Your task to perform on an android device: Add acer nitro to the cart on target.com, then select checkout. Image 0: 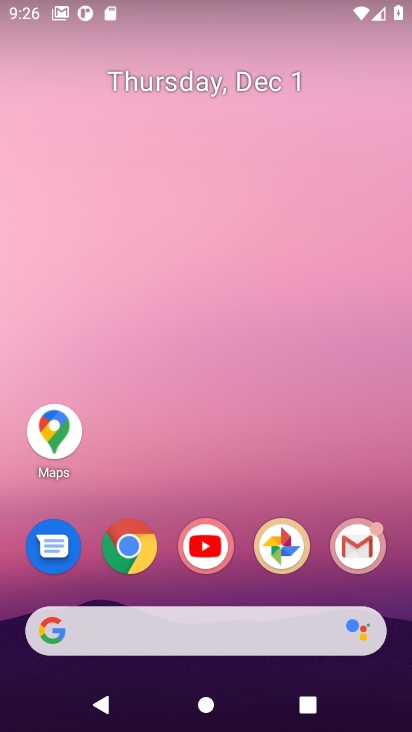
Step 0: click (127, 552)
Your task to perform on an android device: Add acer nitro to the cart on target.com, then select checkout. Image 1: 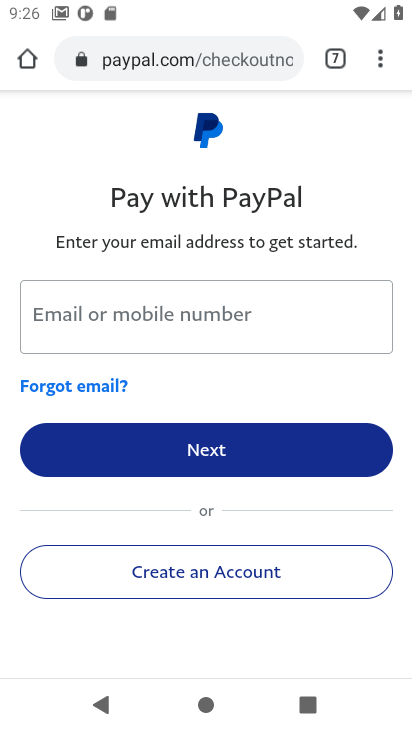
Step 1: click (162, 57)
Your task to perform on an android device: Add acer nitro to the cart on target.com, then select checkout. Image 2: 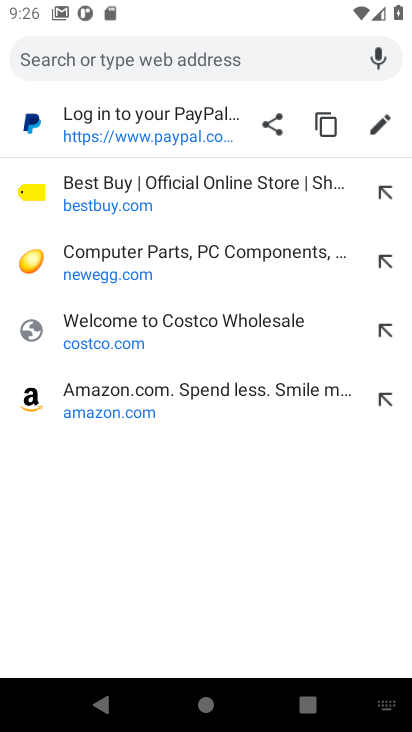
Step 2: type "target.com"
Your task to perform on an android device: Add acer nitro to the cart on target.com, then select checkout. Image 3: 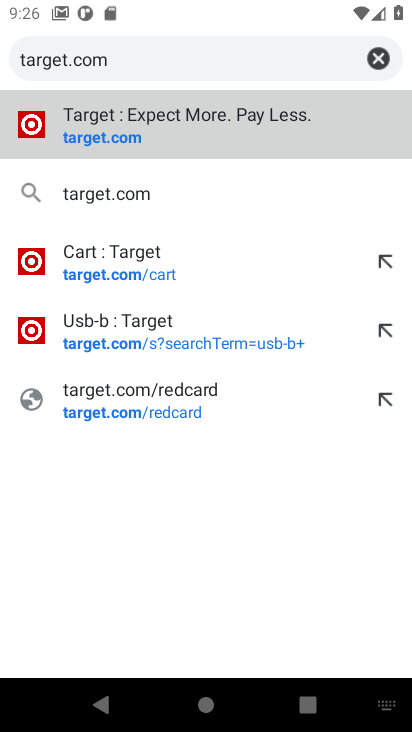
Step 3: click (96, 142)
Your task to perform on an android device: Add acer nitro to the cart on target.com, then select checkout. Image 4: 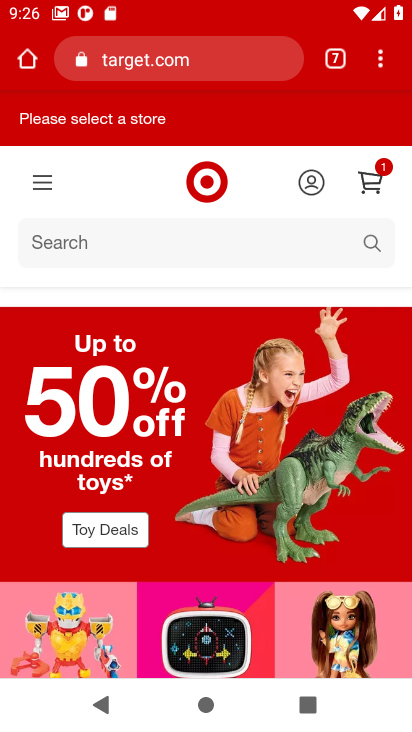
Step 4: click (50, 244)
Your task to perform on an android device: Add acer nitro to the cart on target.com, then select checkout. Image 5: 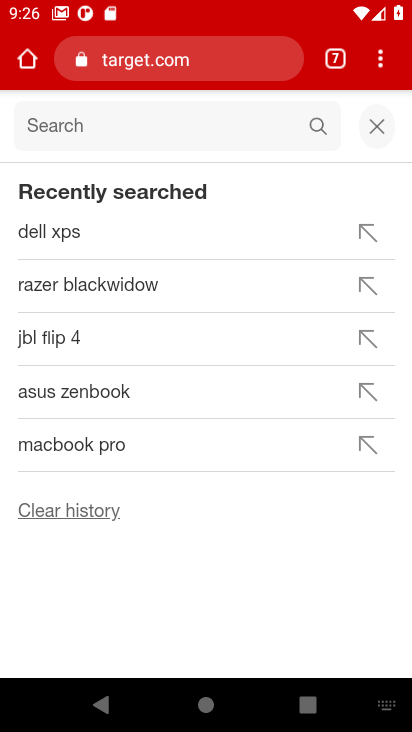
Step 5: type "acer nitro"
Your task to perform on an android device: Add acer nitro to the cart on target.com, then select checkout. Image 6: 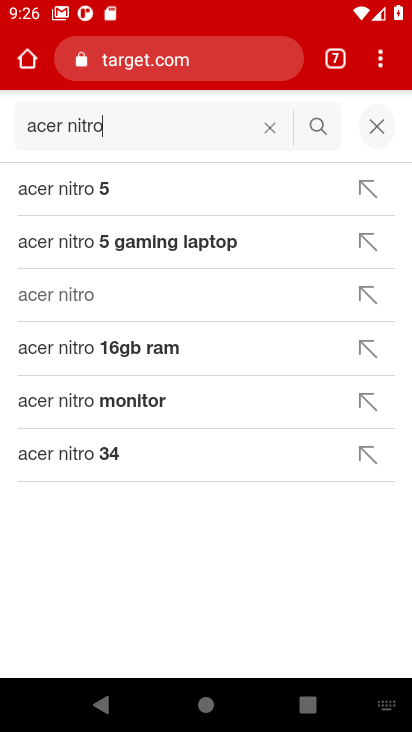
Step 6: click (48, 298)
Your task to perform on an android device: Add acer nitro to the cart on target.com, then select checkout. Image 7: 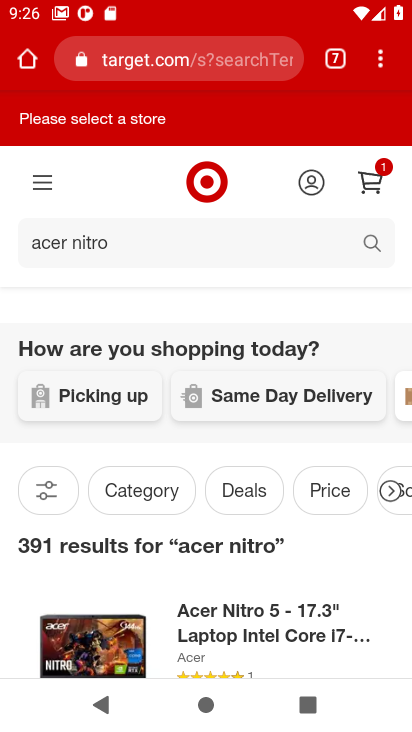
Step 7: drag from (174, 407) to (162, 244)
Your task to perform on an android device: Add acer nitro to the cart on target.com, then select checkout. Image 8: 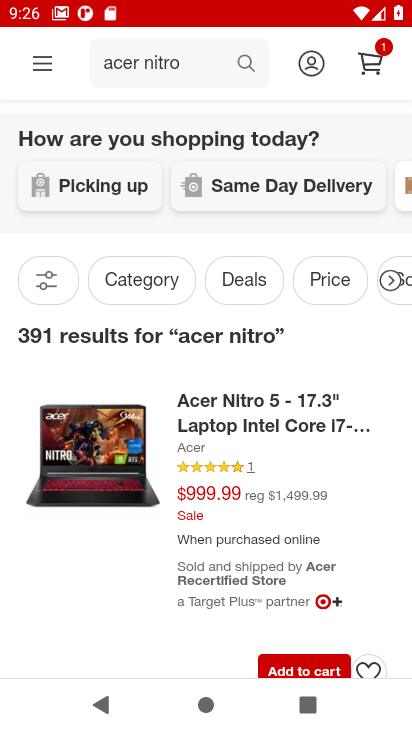
Step 8: click (292, 661)
Your task to perform on an android device: Add acer nitro to the cart on target.com, then select checkout. Image 9: 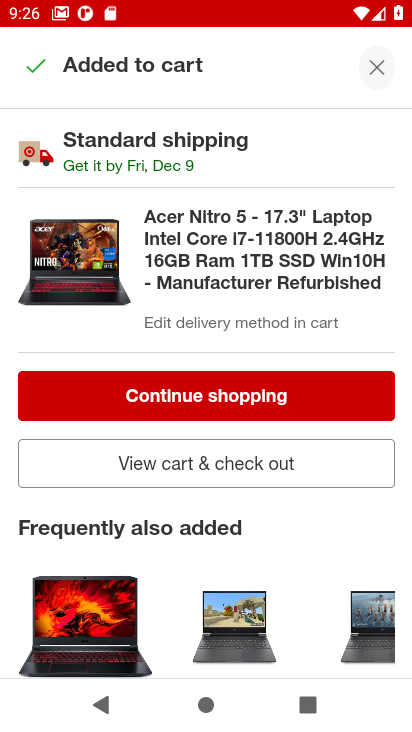
Step 9: click (188, 455)
Your task to perform on an android device: Add acer nitro to the cart on target.com, then select checkout. Image 10: 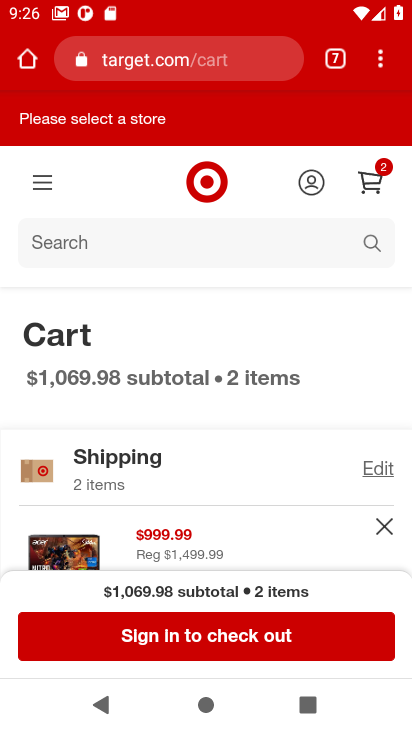
Step 10: click (171, 632)
Your task to perform on an android device: Add acer nitro to the cart on target.com, then select checkout. Image 11: 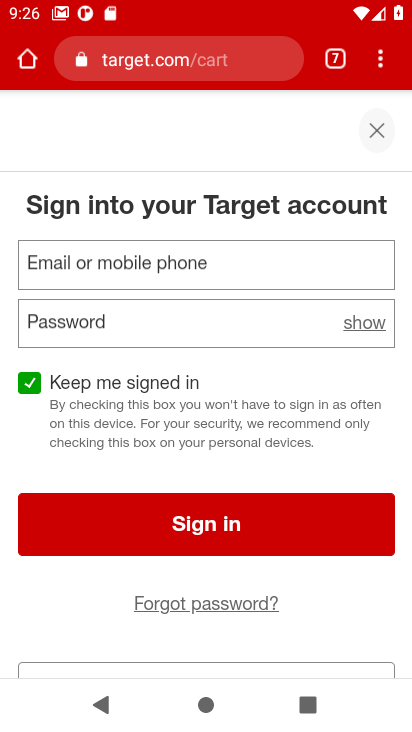
Step 11: task complete